Your task to perform on an android device: install app "YouTube Kids" Image 0: 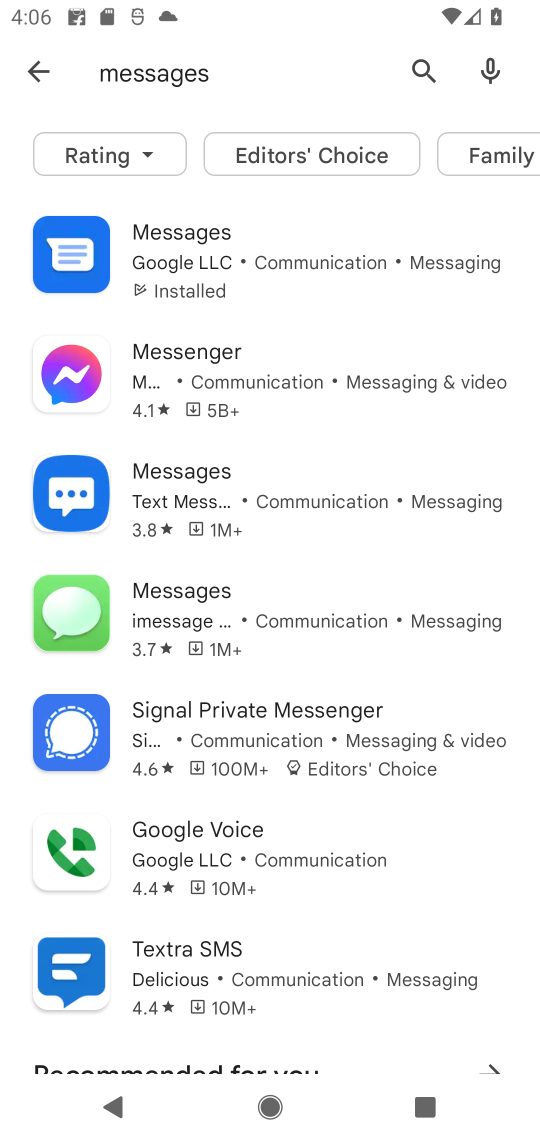
Step 0: press home button
Your task to perform on an android device: install app "YouTube Kids" Image 1: 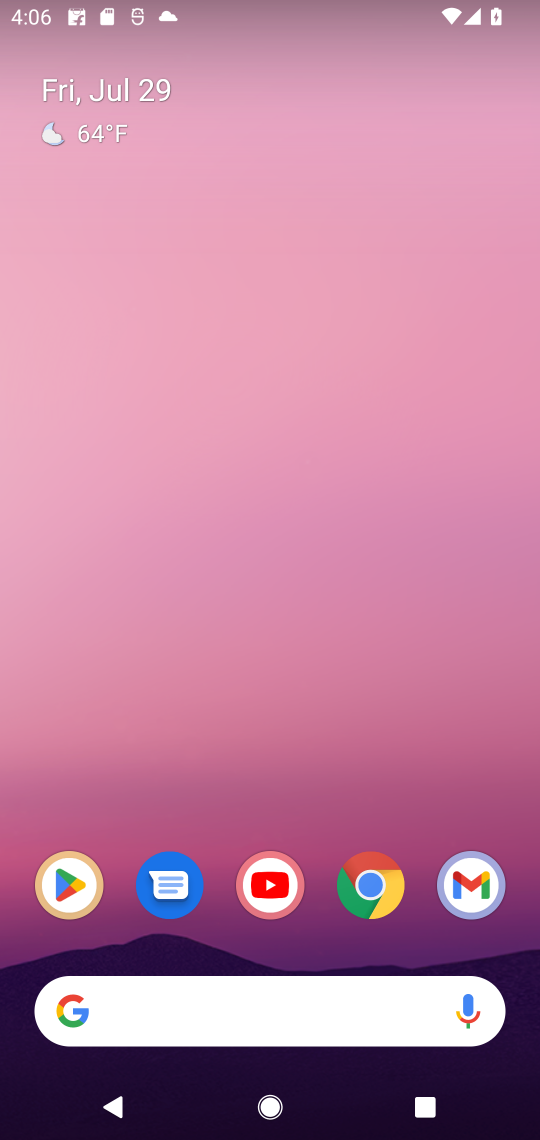
Step 1: click (71, 890)
Your task to perform on an android device: install app "YouTube Kids" Image 2: 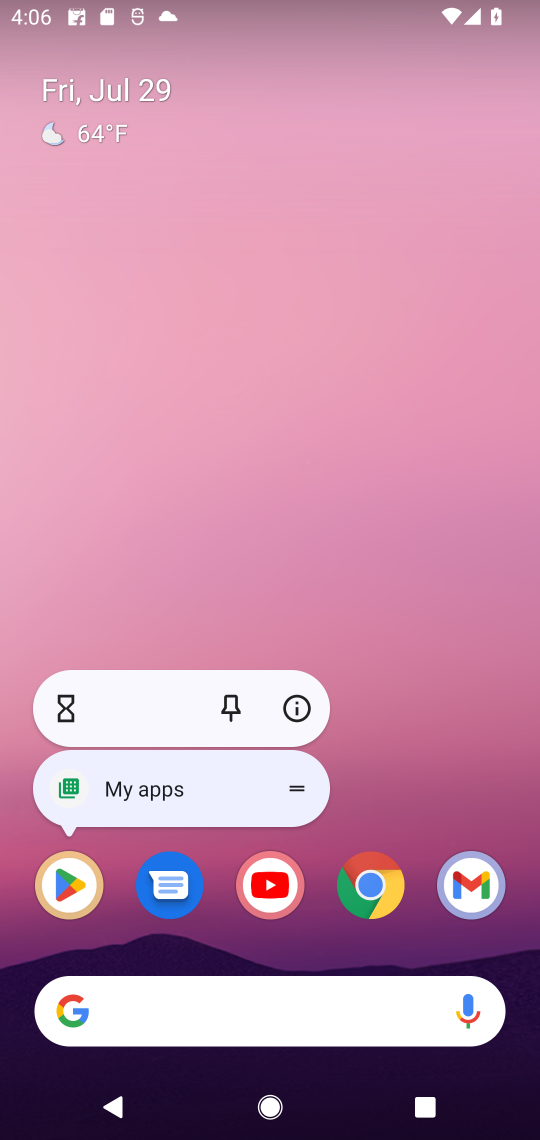
Step 2: click (71, 890)
Your task to perform on an android device: install app "YouTube Kids" Image 3: 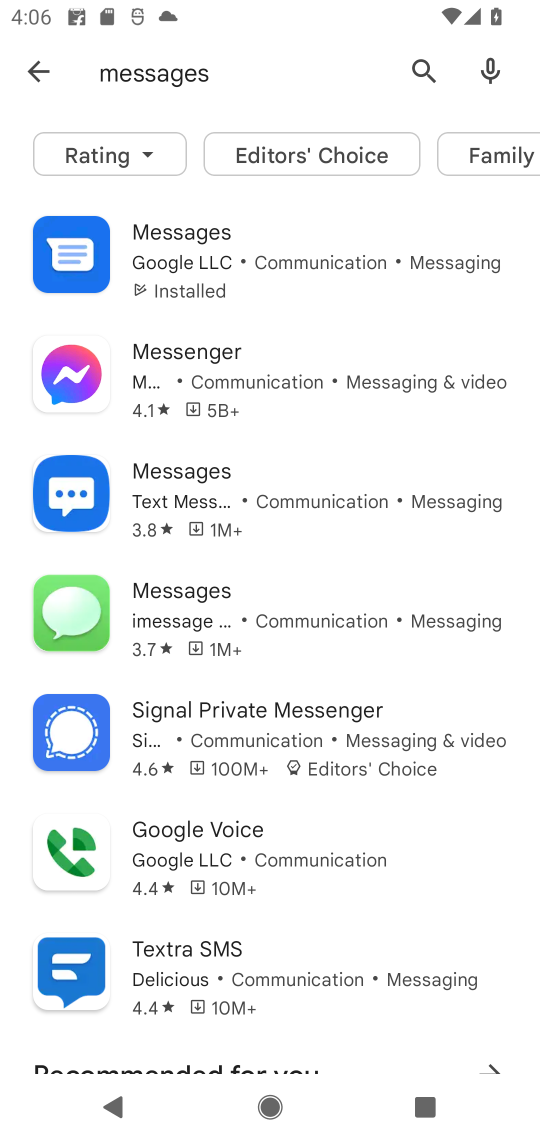
Step 3: click (421, 72)
Your task to perform on an android device: install app "YouTube Kids" Image 4: 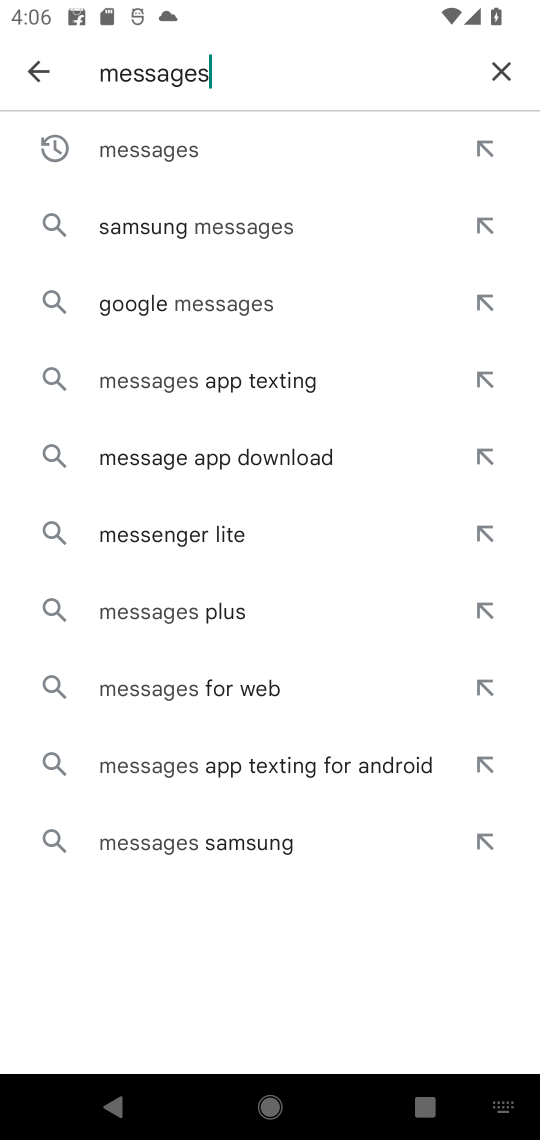
Step 4: click (502, 77)
Your task to perform on an android device: install app "YouTube Kids" Image 5: 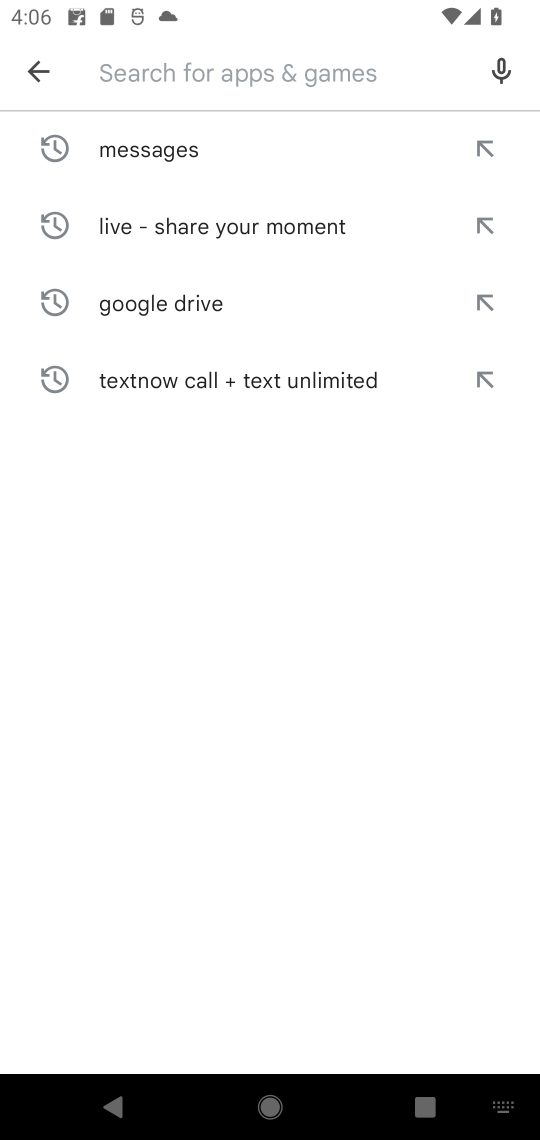
Step 5: type "YouTube Kids"
Your task to perform on an android device: install app "YouTube Kids" Image 6: 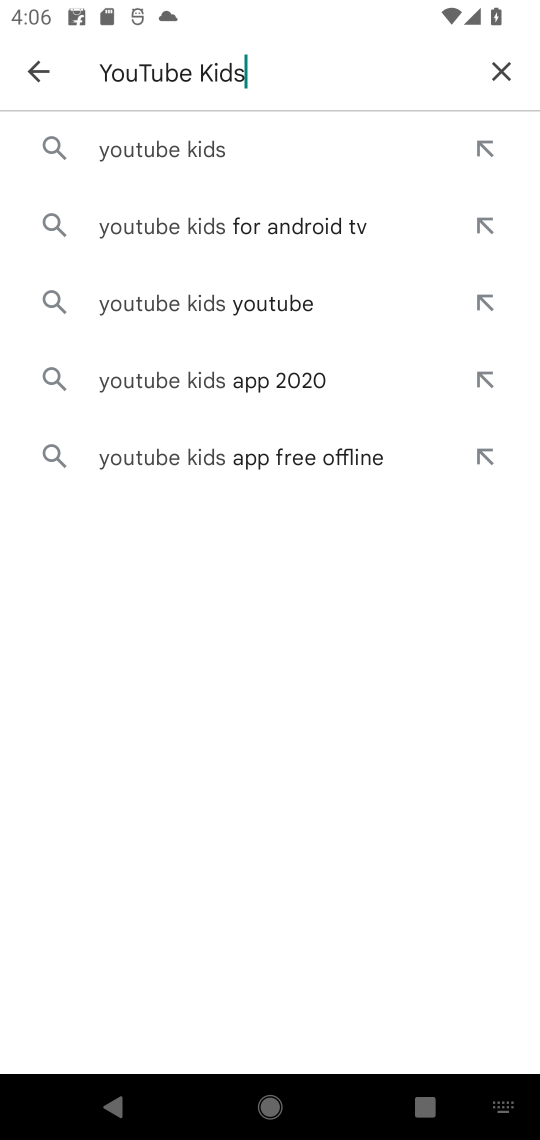
Step 6: click (234, 159)
Your task to perform on an android device: install app "YouTube Kids" Image 7: 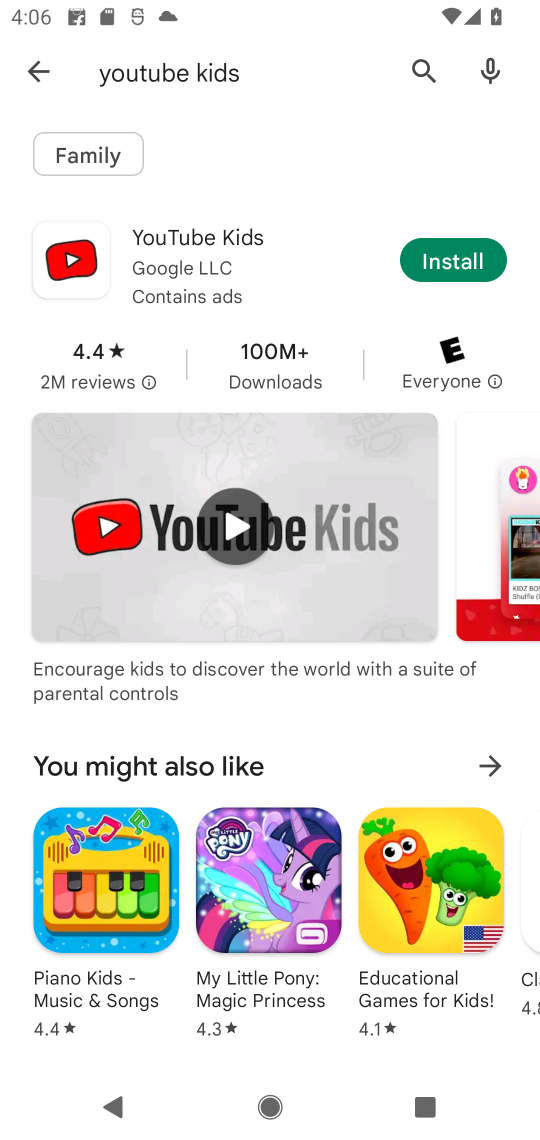
Step 7: click (465, 263)
Your task to perform on an android device: install app "YouTube Kids" Image 8: 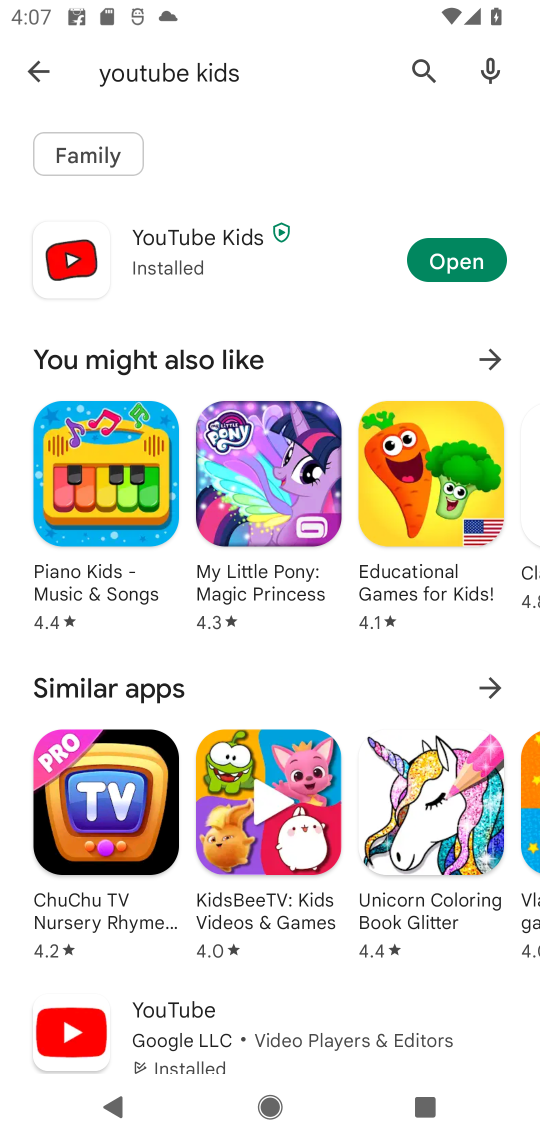
Step 8: task complete